Your task to perform on an android device: check google app version Image 0: 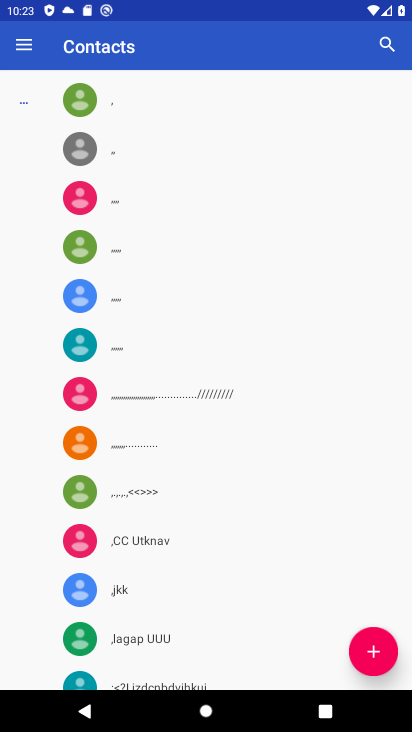
Step 0: press home button
Your task to perform on an android device: check google app version Image 1: 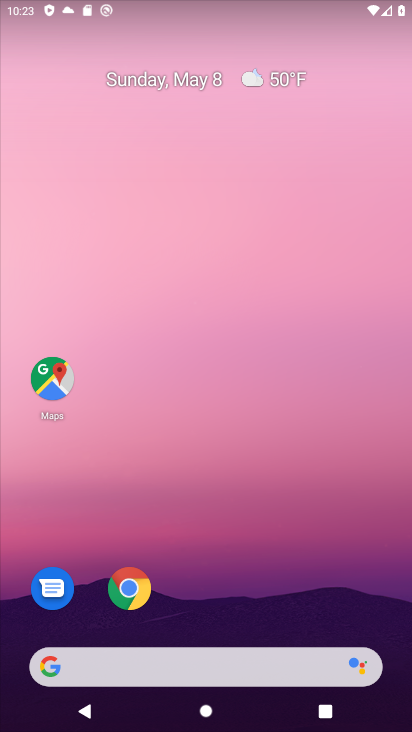
Step 1: drag from (262, 579) to (184, 96)
Your task to perform on an android device: check google app version Image 2: 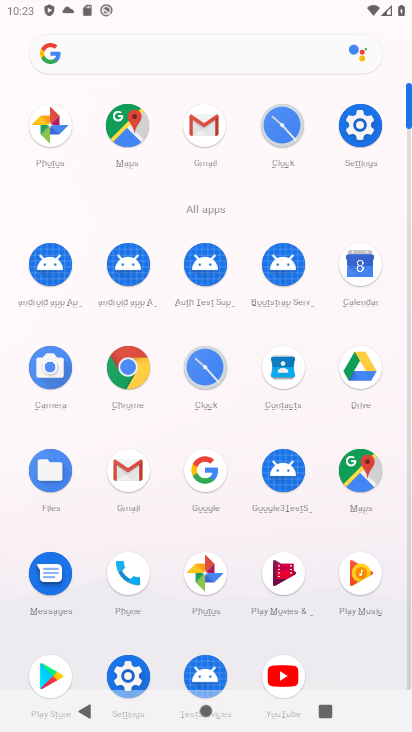
Step 2: click (214, 473)
Your task to perform on an android device: check google app version Image 3: 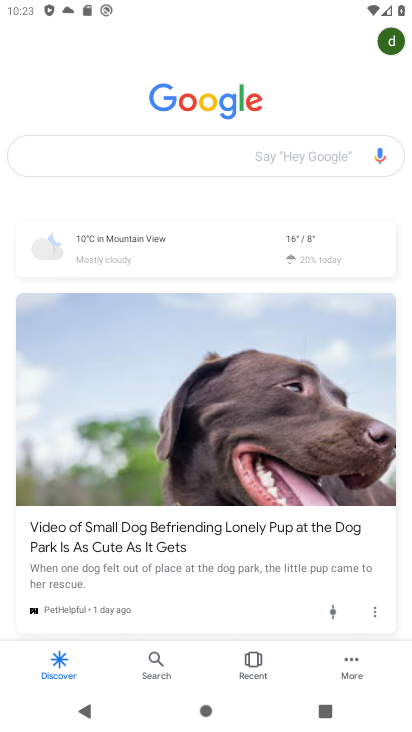
Step 3: click (361, 663)
Your task to perform on an android device: check google app version Image 4: 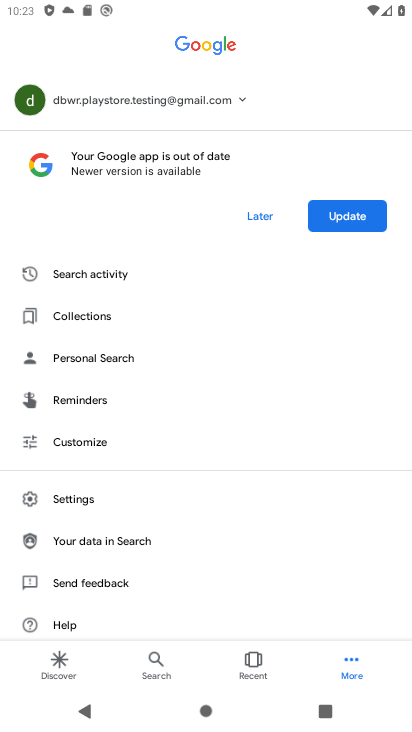
Step 4: click (87, 499)
Your task to perform on an android device: check google app version Image 5: 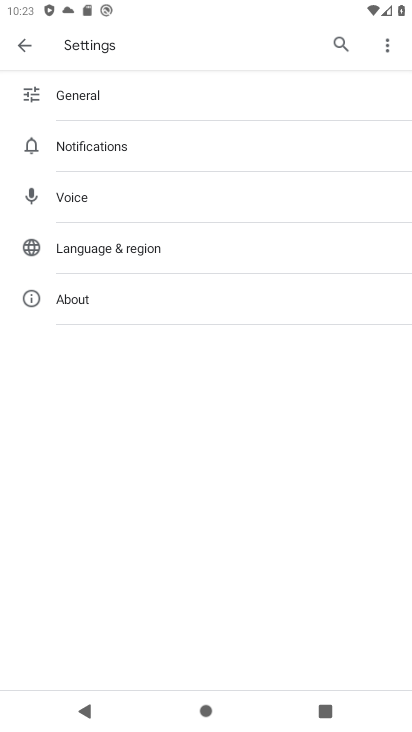
Step 5: click (78, 305)
Your task to perform on an android device: check google app version Image 6: 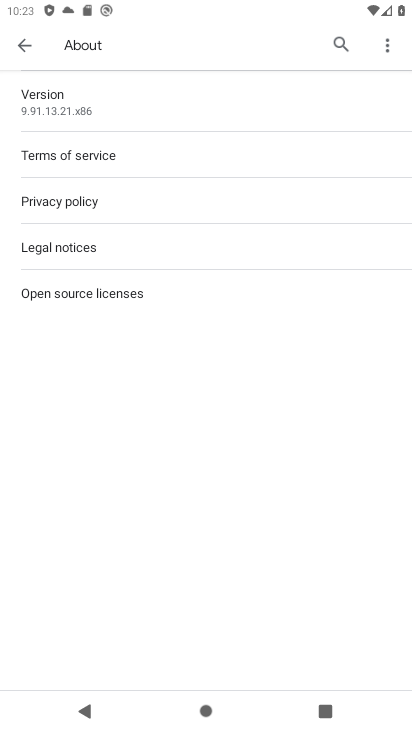
Step 6: click (101, 108)
Your task to perform on an android device: check google app version Image 7: 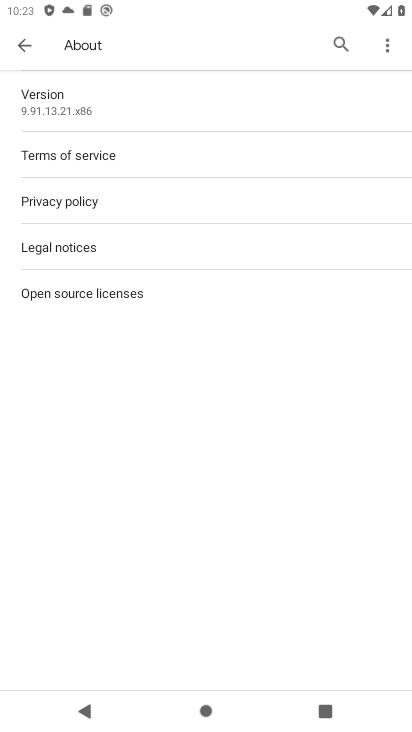
Step 7: task complete